Your task to perform on an android device: manage bookmarks in the chrome app Image 0: 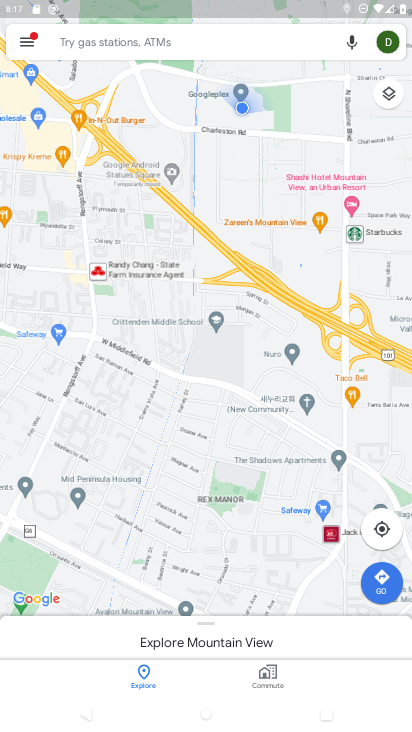
Step 0: press home button
Your task to perform on an android device: manage bookmarks in the chrome app Image 1: 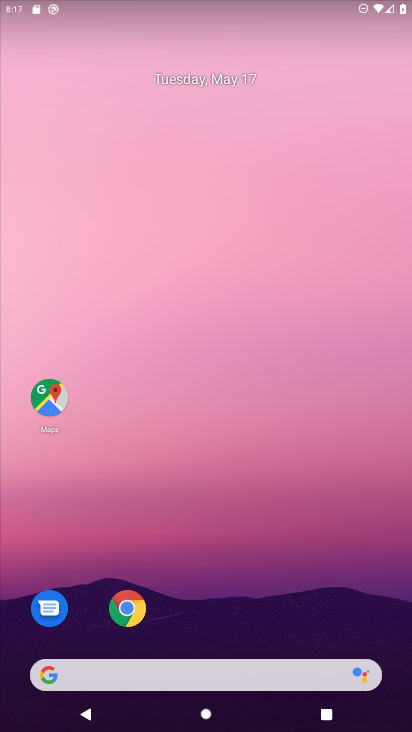
Step 1: click (132, 612)
Your task to perform on an android device: manage bookmarks in the chrome app Image 2: 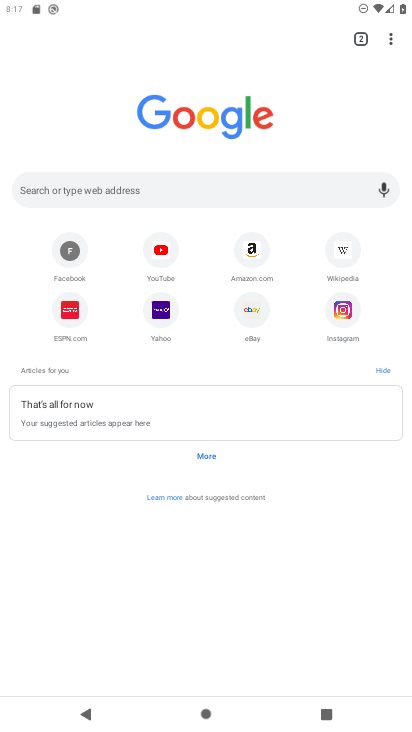
Step 2: click (391, 35)
Your task to perform on an android device: manage bookmarks in the chrome app Image 3: 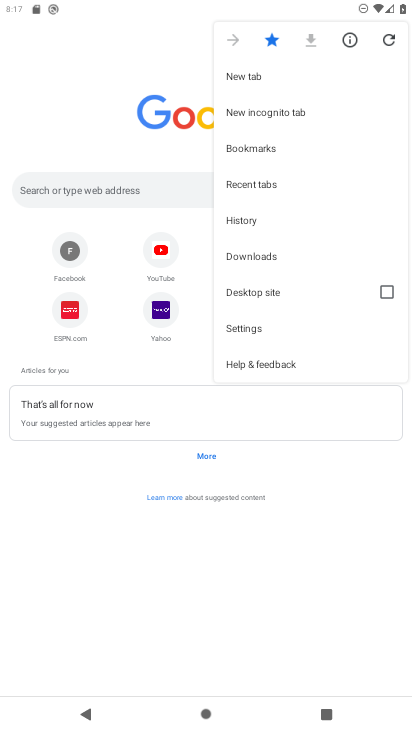
Step 3: click (262, 156)
Your task to perform on an android device: manage bookmarks in the chrome app Image 4: 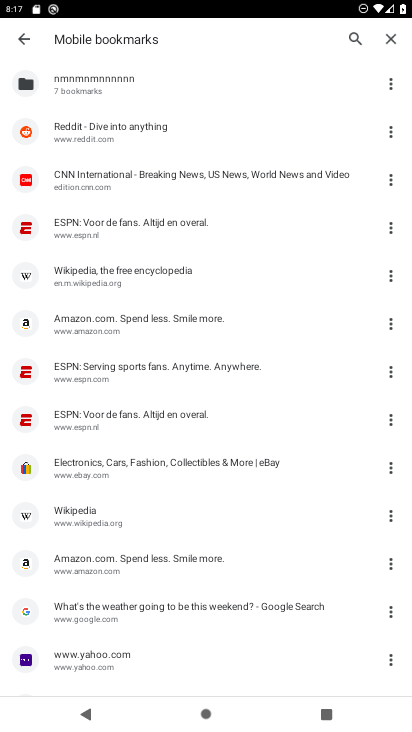
Step 4: click (388, 131)
Your task to perform on an android device: manage bookmarks in the chrome app Image 5: 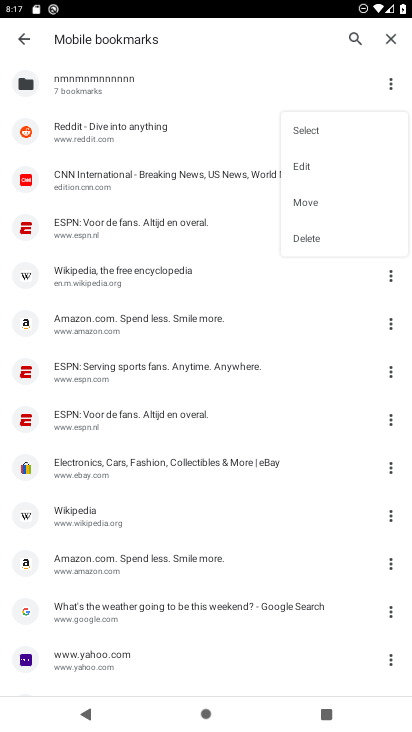
Step 5: click (318, 128)
Your task to perform on an android device: manage bookmarks in the chrome app Image 6: 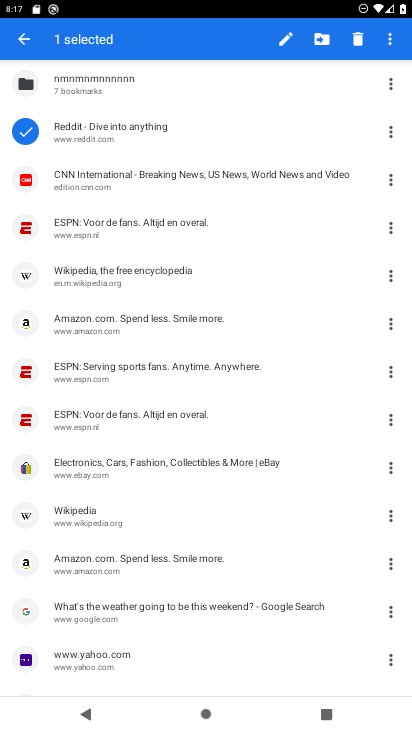
Step 6: click (266, 217)
Your task to perform on an android device: manage bookmarks in the chrome app Image 7: 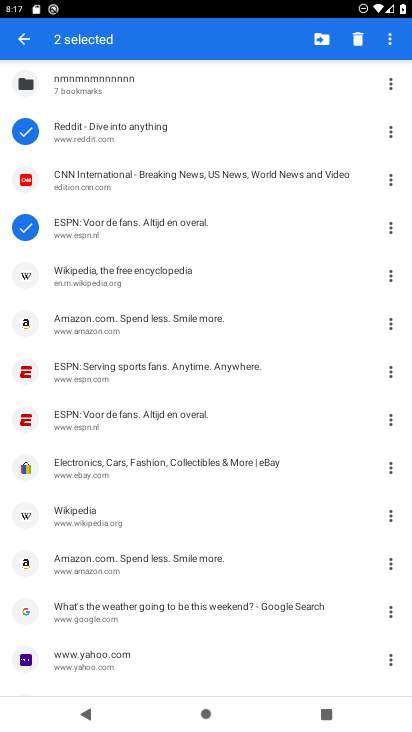
Step 7: click (271, 184)
Your task to perform on an android device: manage bookmarks in the chrome app Image 8: 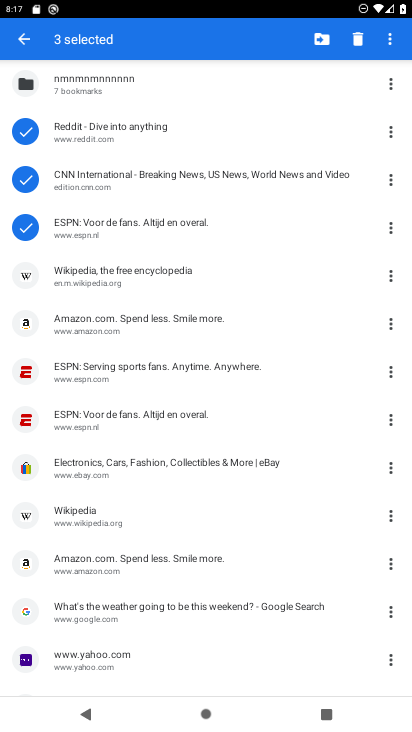
Step 8: click (195, 285)
Your task to perform on an android device: manage bookmarks in the chrome app Image 9: 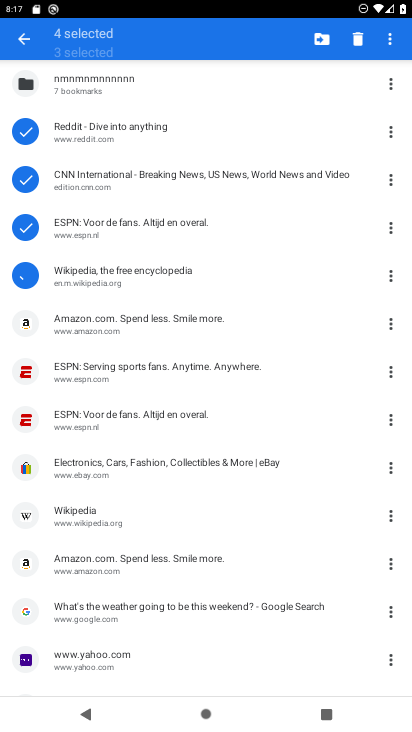
Step 9: click (166, 329)
Your task to perform on an android device: manage bookmarks in the chrome app Image 10: 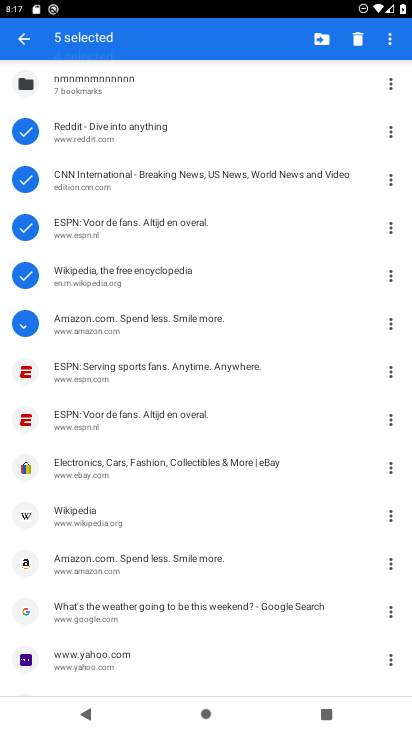
Step 10: click (148, 380)
Your task to perform on an android device: manage bookmarks in the chrome app Image 11: 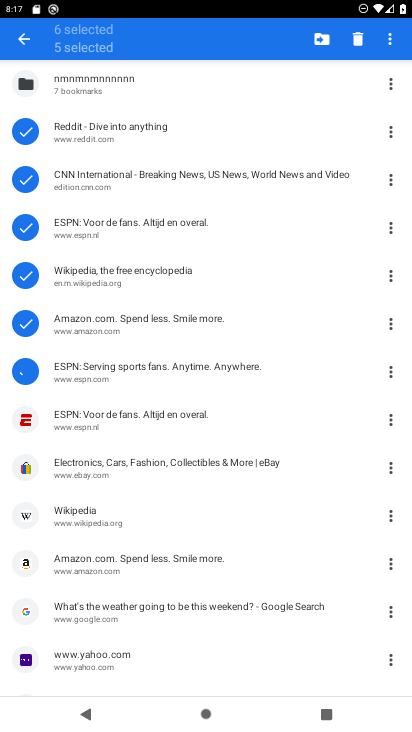
Step 11: click (126, 427)
Your task to perform on an android device: manage bookmarks in the chrome app Image 12: 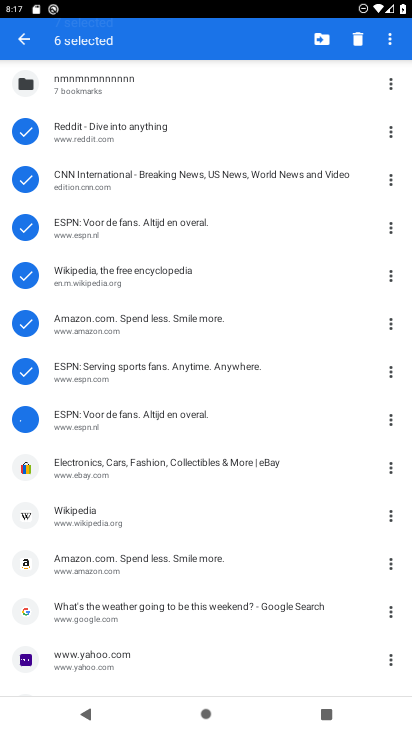
Step 12: drag from (93, 480) to (49, 541)
Your task to perform on an android device: manage bookmarks in the chrome app Image 13: 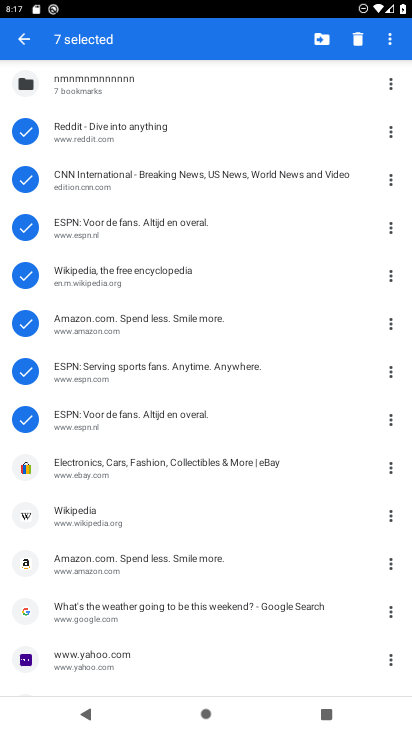
Step 13: click (43, 537)
Your task to perform on an android device: manage bookmarks in the chrome app Image 14: 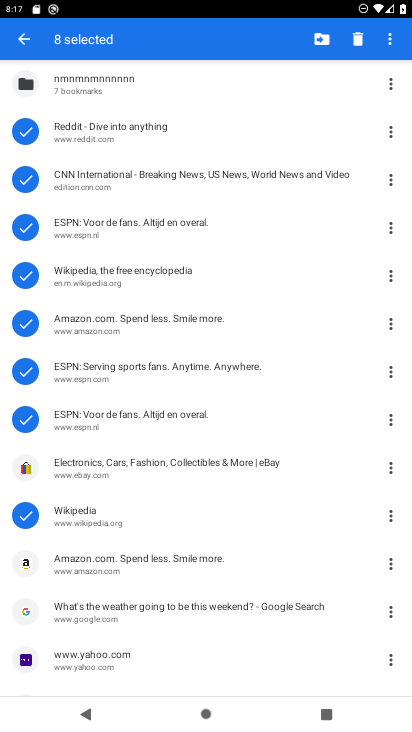
Step 14: click (67, 461)
Your task to perform on an android device: manage bookmarks in the chrome app Image 15: 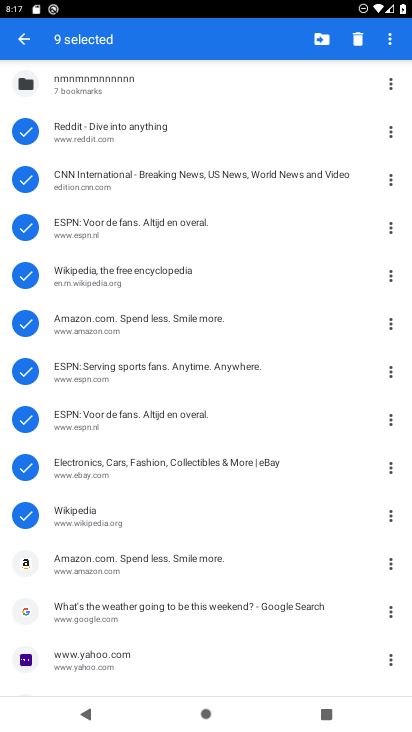
Step 15: click (75, 568)
Your task to perform on an android device: manage bookmarks in the chrome app Image 16: 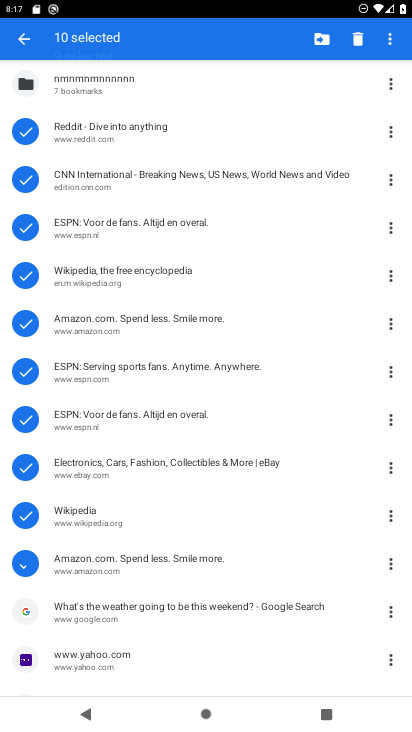
Step 16: click (74, 621)
Your task to perform on an android device: manage bookmarks in the chrome app Image 17: 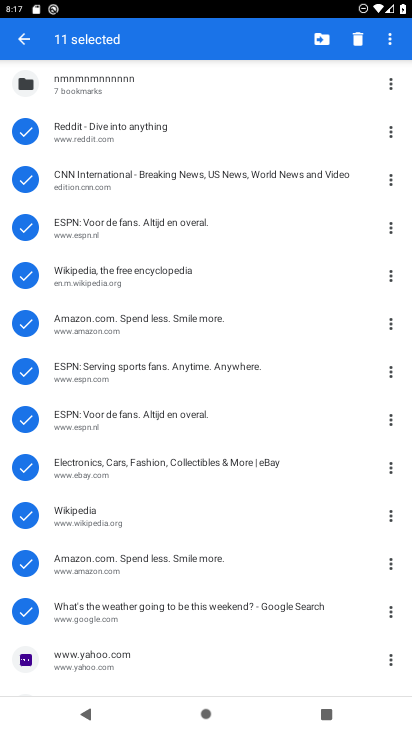
Step 17: click (56, 672)
Your task to perform on an android device: manage bookmarks in the chrome app Image 18: 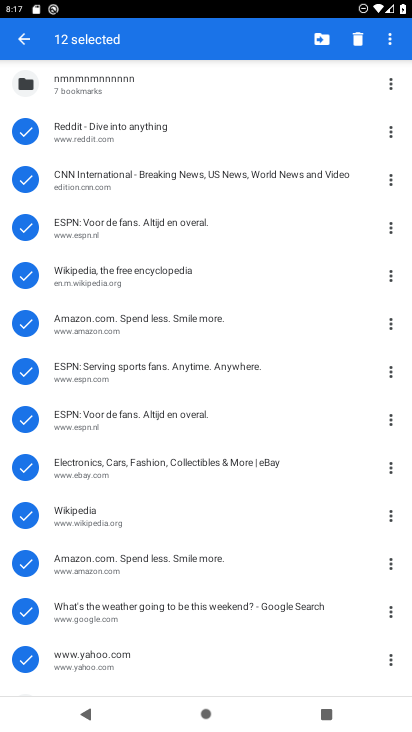
Step 18: click (315, 39)
Your task to perform on an android device: manage bookmarks in the chrome app Image 19: 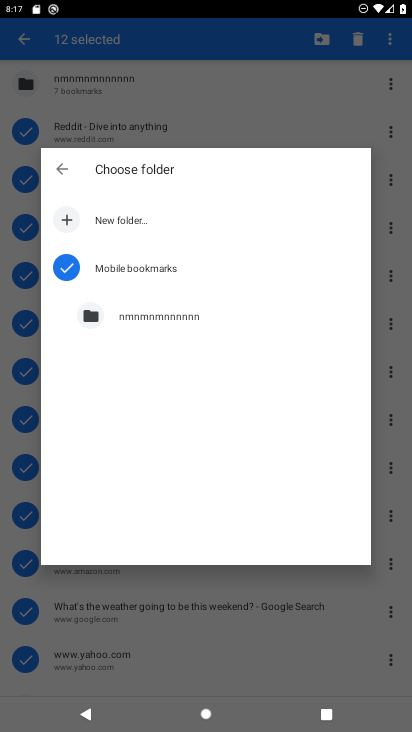
Step 19: click (190, 321)
Your task to perform on an android device: manage bookmarks in the chrome app Image 20: 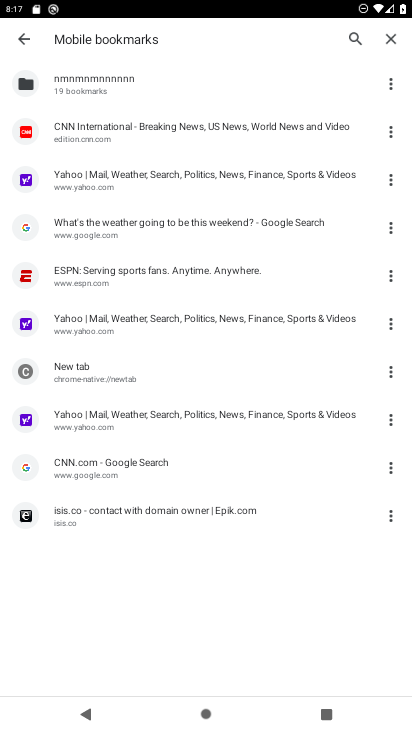
Step 20: task complete